Your task to perform on an android device: Go to calendar. Show me events next week Image 0: 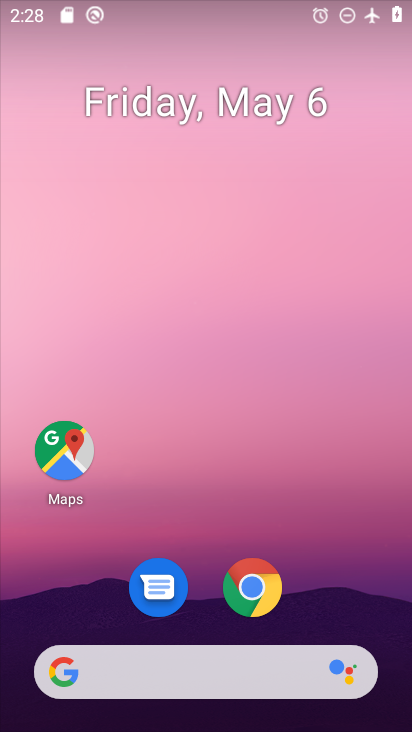
Step 0: drag from (312, 549) to (299, 21)
Your task to perform on an android device: Go to calendar. Show me events next week Image 1: 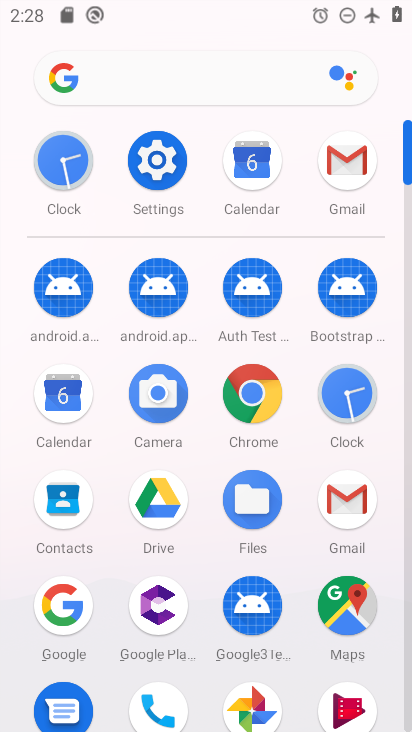
Step 1: click (247, 161)
Your task to perform on an android device: Go to calendar. Show me events next week Image 2: 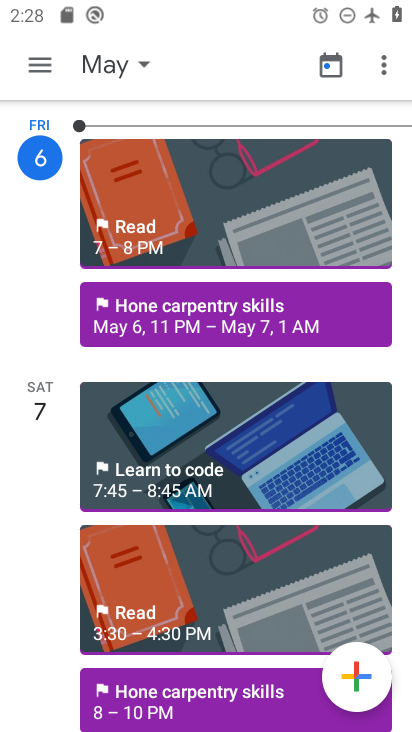
Step 2: click (48, 64)
Your task to perform on an android device: Go to calendar. Show me events next week Image 3: 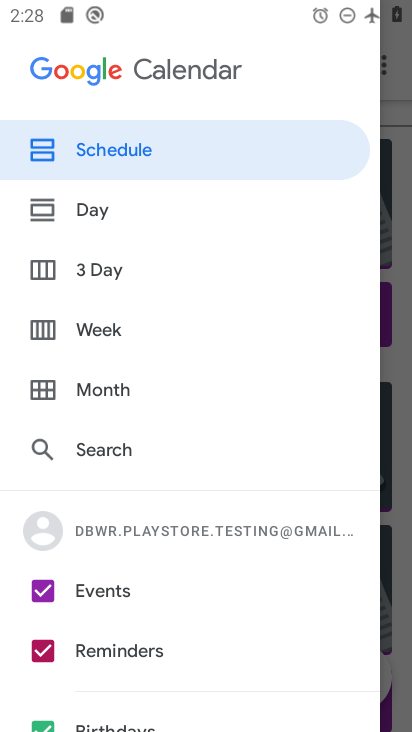
Step 3: click (41, 326)
Your task to perform on an android device: Go to calendar. Show me events next week Image 4: 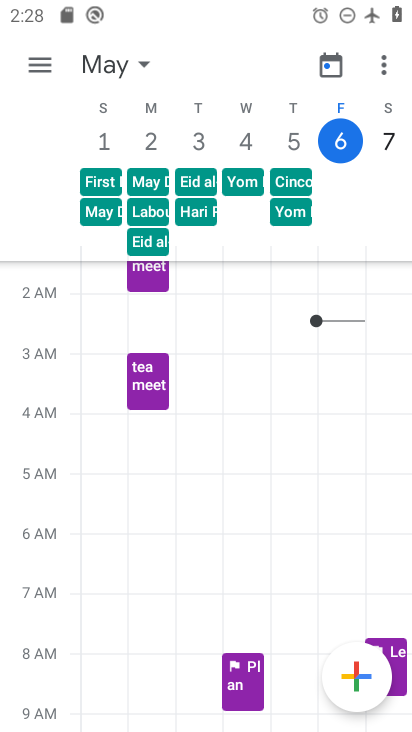
Step 4: task complete